Your task to perform on an android device: toggle improve location accuracy Image 0: 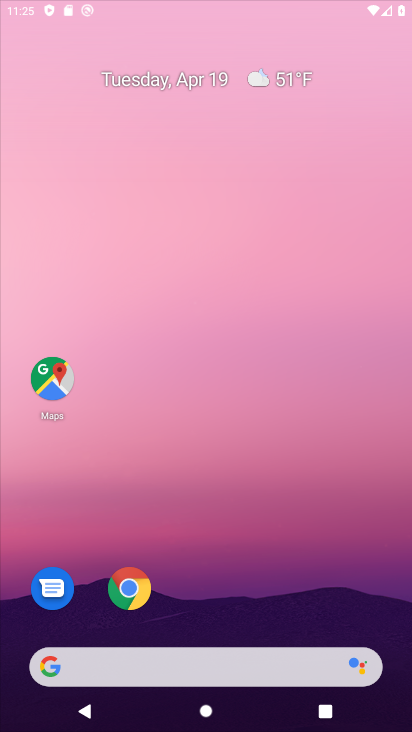
Step 0: click (251, 1)
Your task to perform on an android device: toggle improve location accuracy Image 1: 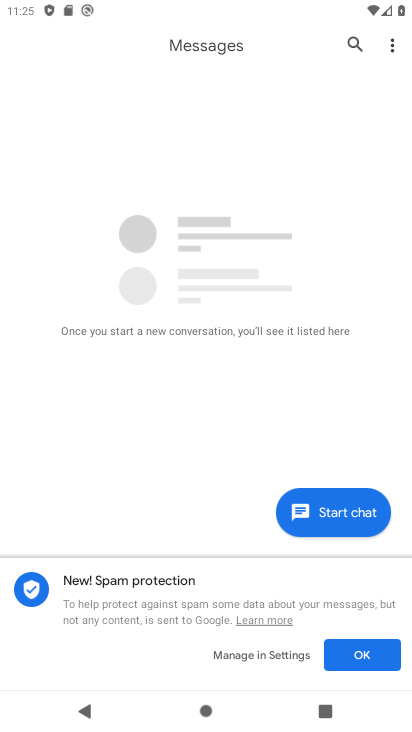
Step 1: press home button
Your task to perform on an android device: toggle improve location accuracy Image 2: 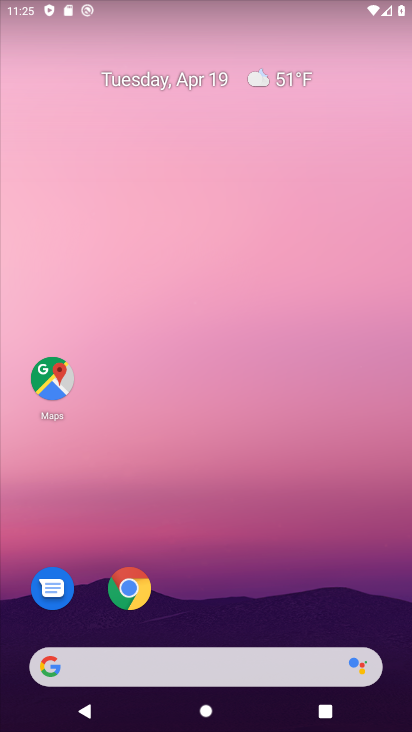
Step 2: drag from (207, 610) to (220, 82)
Your task to perform on an android device: toggle improve location accuracy Image 3: 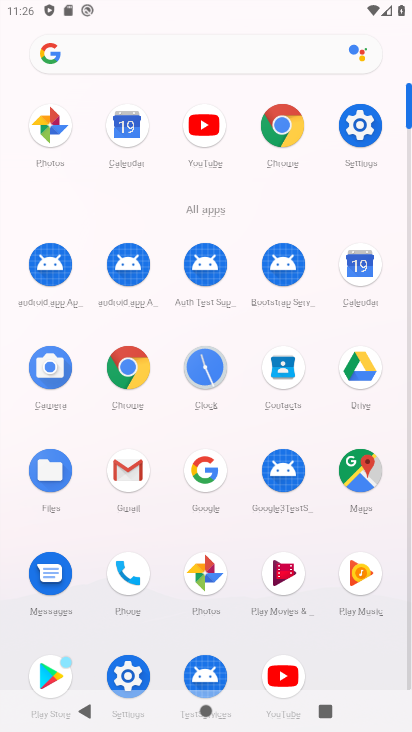
Step 3: click (357, 118)
Your task to perform on an android device: toggle improve location accuracy Image 4: 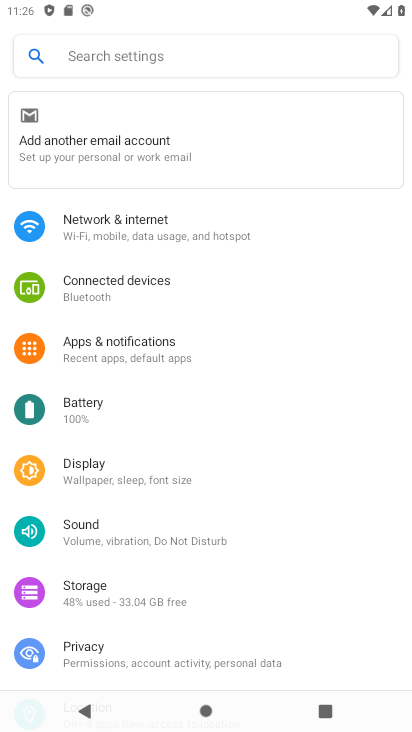
Step 4: drag from (236, 625) to (251, 241)
Your task to perform on an android device: toggle improve location accuracy Image 5: 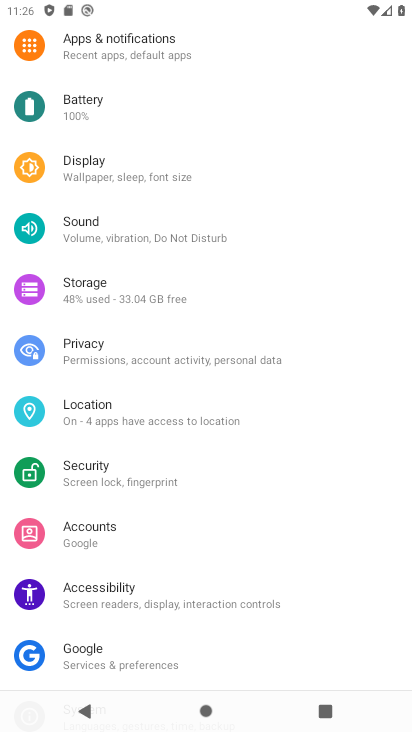
Step 5: click (135, 403)
Your task to perform on an android device: toggle improve location accuracy Image 6: 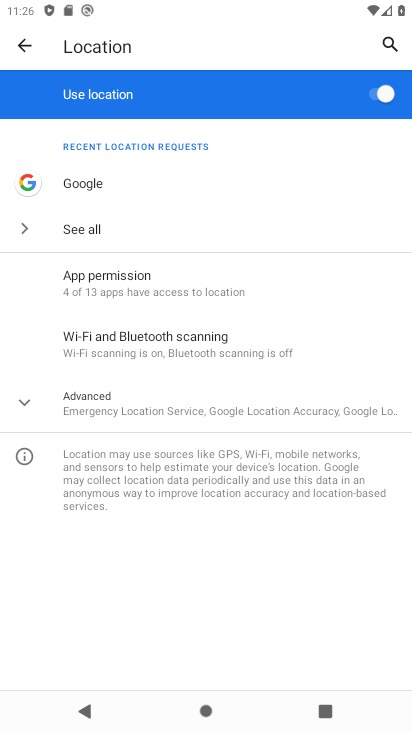
Step 6: click (29, 400)
Your task to perform on an android device: toggle improve location accuracy Image 7: 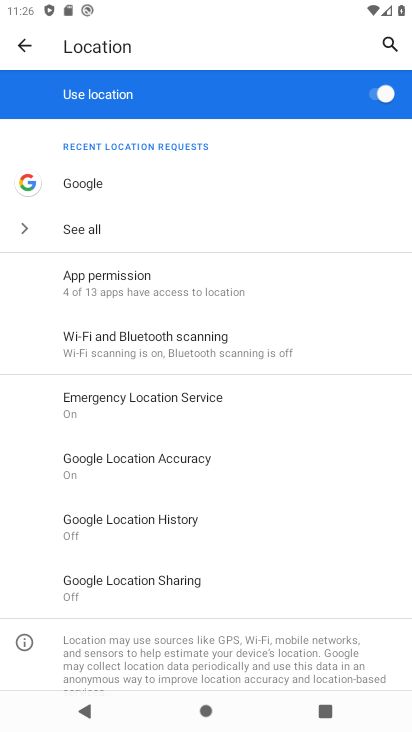
Step 7: click (146, 469)
Your task to perform on an android device: toggle improve location accuracy Image 8: 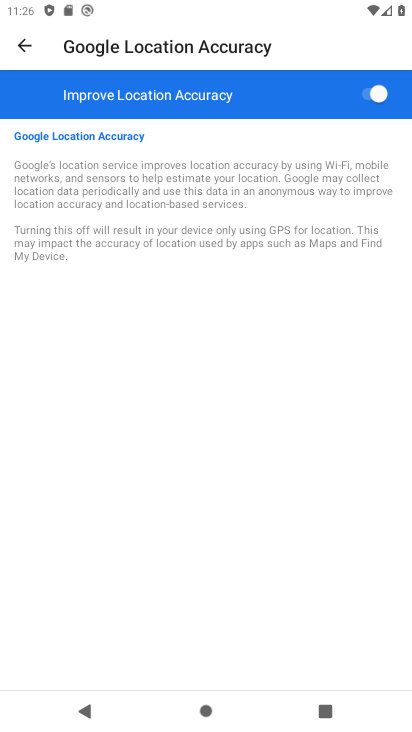
Step 8: click (371, 92)
Your task to perform on an android device: toggle improve location accuracy Image 9: 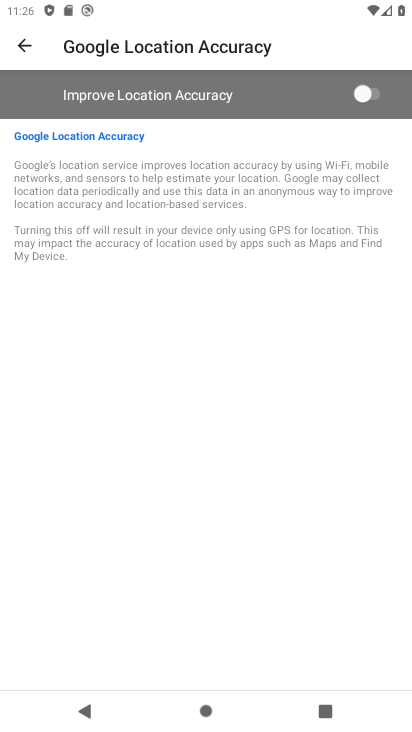
Step 9: task complete